Your task to perform on an android device: Go to calendar. Show me events next week Image 0: 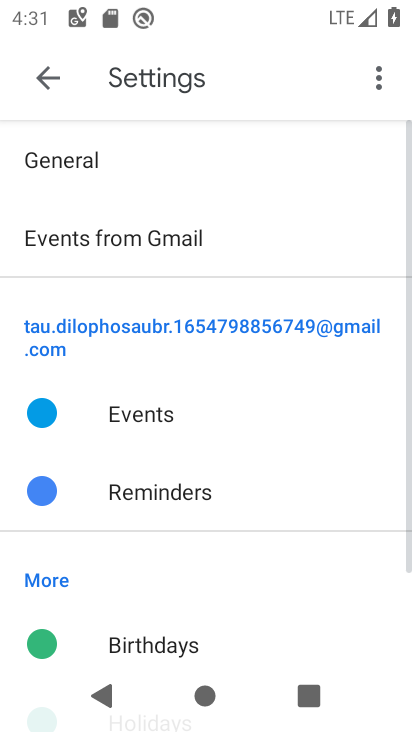
Step 0: press back button
Your task to perform on an android device: Go to calendar. Show me events next week Image 1: 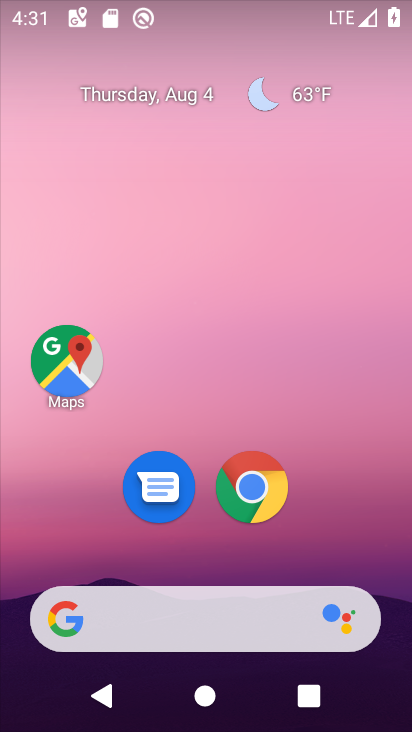
Step 1: drag from (89, 523) to (310, 0)
Your task to perform on an android device: Go to calendar. Show me events next week Image 2: 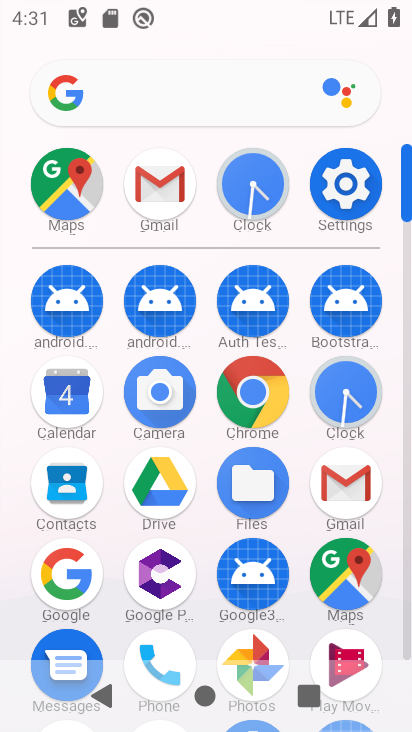
Step 2: click (78, 381)
Your task to perform on an android device: Go to calendar. Show me events next week Image 3: 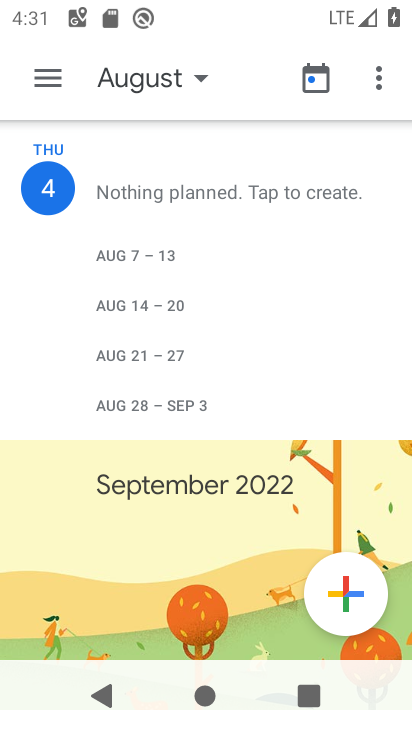
Step 3: click (196, 69)
Your task to perform on an android device: Go to calendar. Show me events next week Image 4: 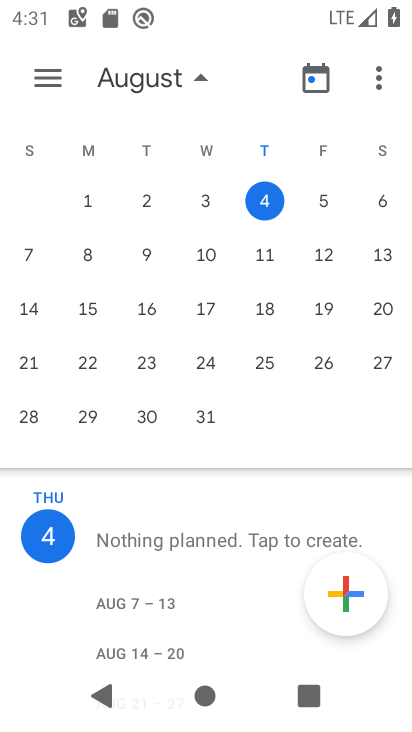
Step 4: click (90, 259)
Your task to perform on an android device: Go to calendar. Show me events next week Image 5: 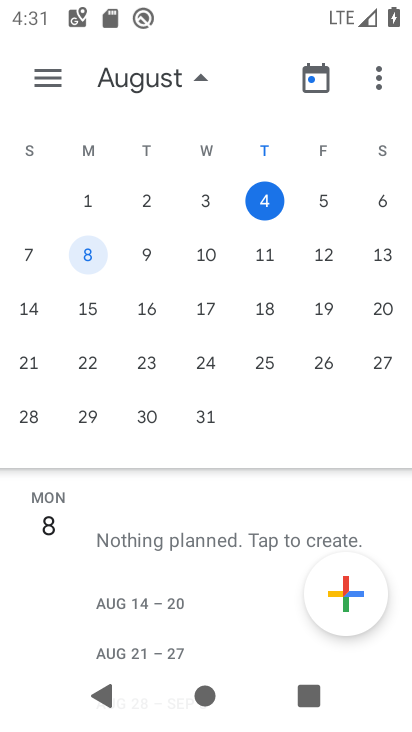
Step 5: task complete